Your task to perform on an android device: Open Amazon Image 0: 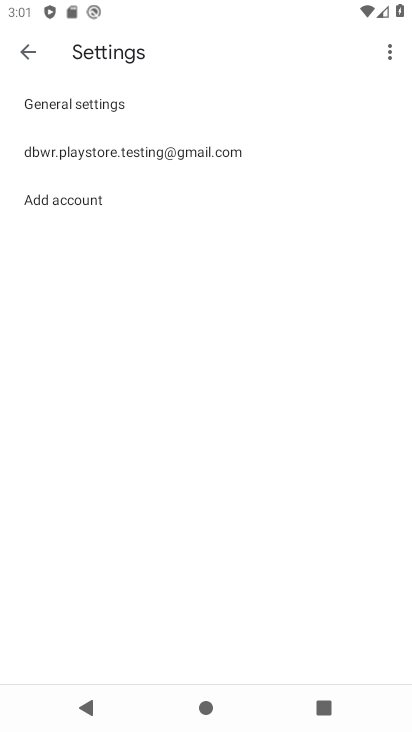
Step 0: press back button
Your task to perform on an android device: Open Amazon Image 1: 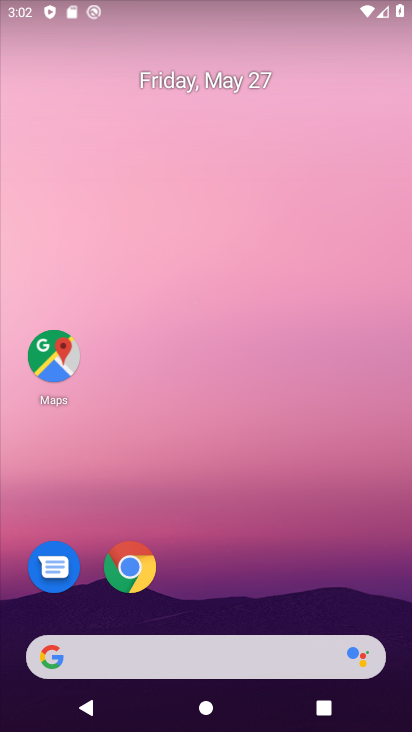
Step 1: click (129, 565)
Your task to perform on an android device: Open Amazon Image 2: 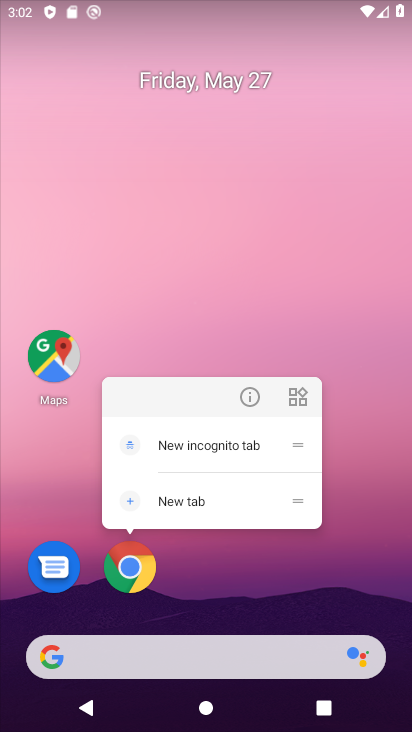
Step 2: click (127, 572)
Your task to perform on an android device: Open Amazon Image 3: 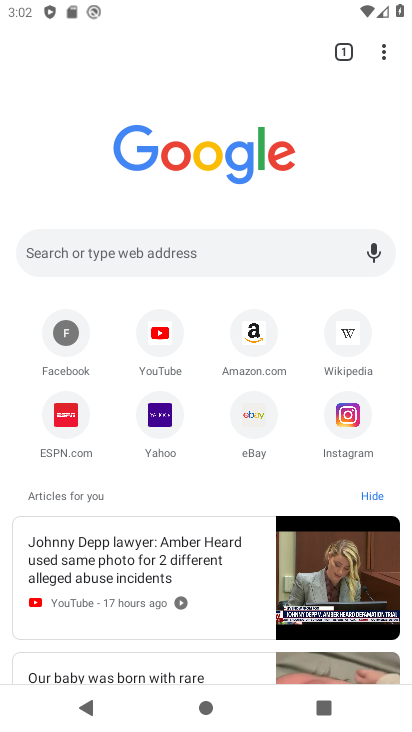
Step 3: click (244, 333)
Your task to perform on an android device: Open Amazon Image 4: 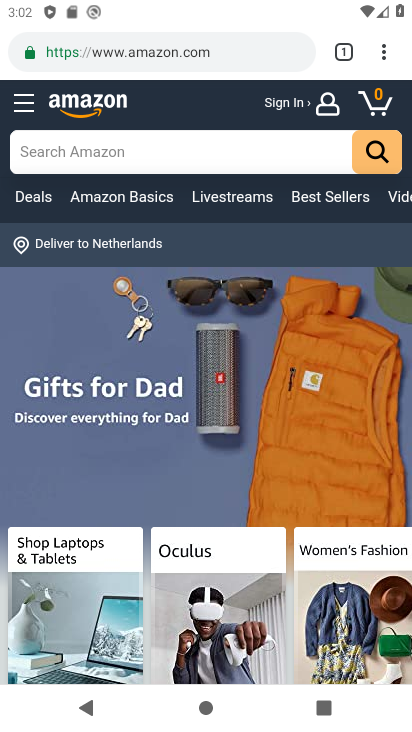
Step 4: task complete